Your task to perform on an android device: open sync settings in chrome Image 0: 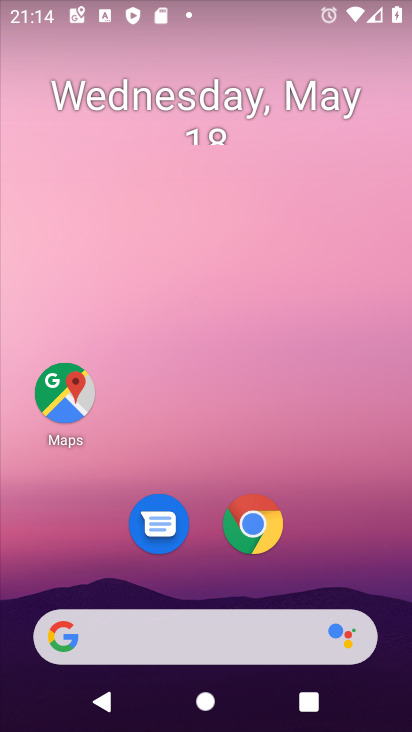
Step 0: click (253, 524)
Your task to perform on an android device: open sync settings in chrome Image 1: 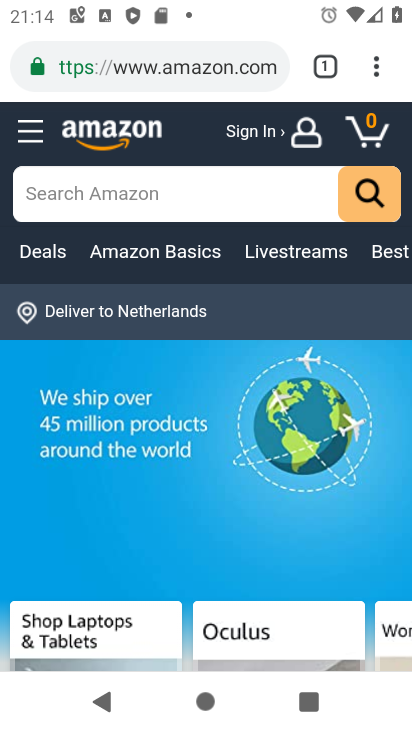
Step 1: click (371, 63)
Your task to perform on an android device: open sync settings in chrome Image 2: 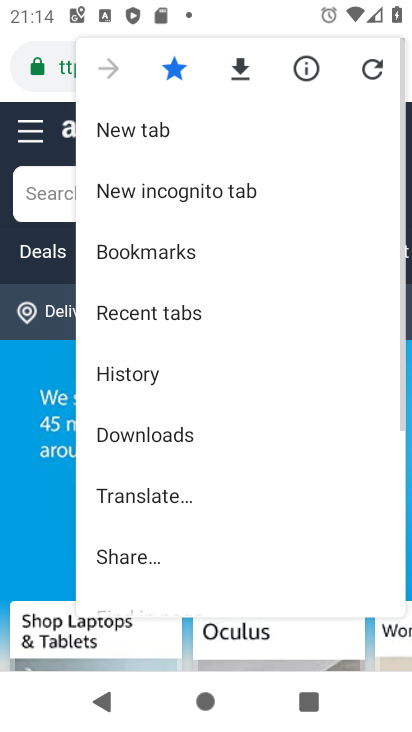
Step 2: drag from (250, 458) to (261, 234)
Your task to perform on an android device: open sync settings in chrome Image 3: 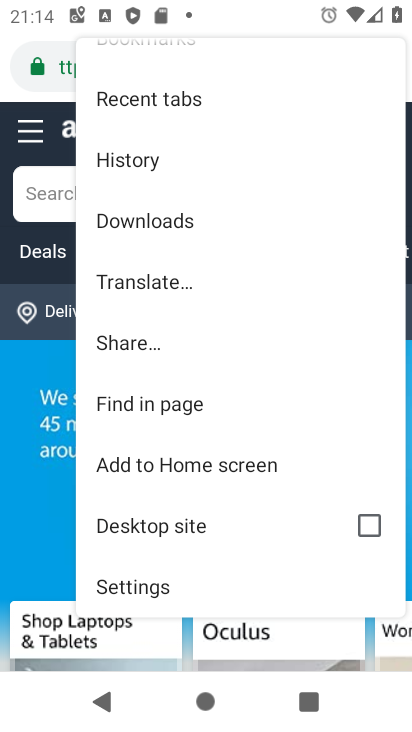
Step 3: click (186, 579)
Your task to perform on an android device: open sync settings in chrome Image 4: 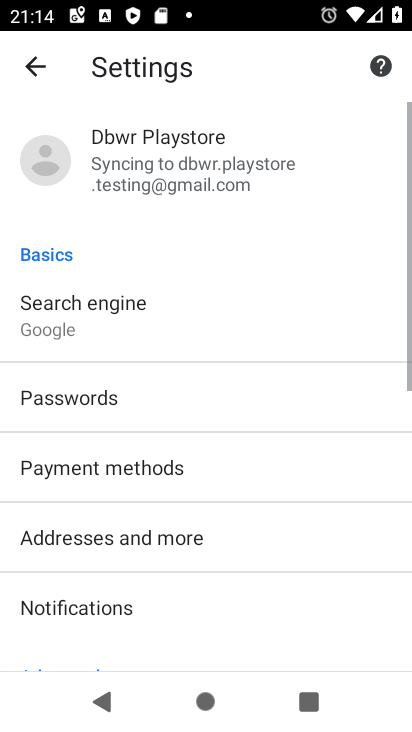
Step 4: click (176, 159)
Your task to perform on an android device: open sync settings in chrome Image 5: 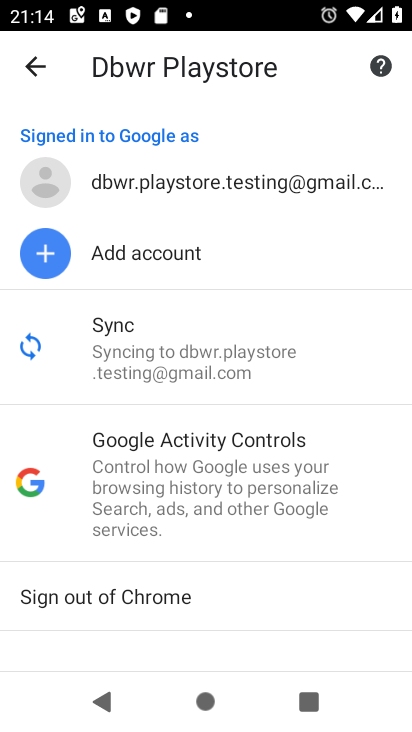
Step 5: click (184, 341)
Your task to perform on an android device: open sync settings in chrome Image 6: 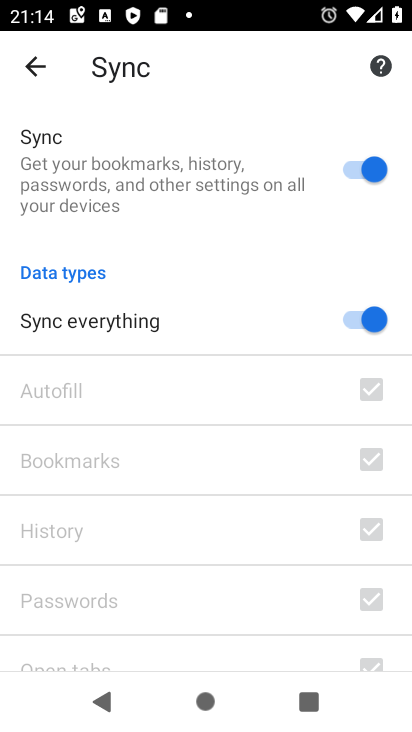
Step 6: task complete